Your task to perform on an android device: turn off picture-in-picture Image 0: 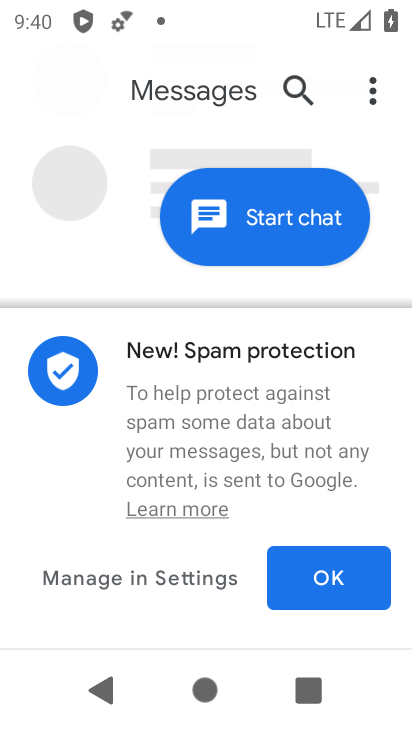
Step 0: press home button
Your task to perform on an android device: turn off picture-in-picture Image 1: 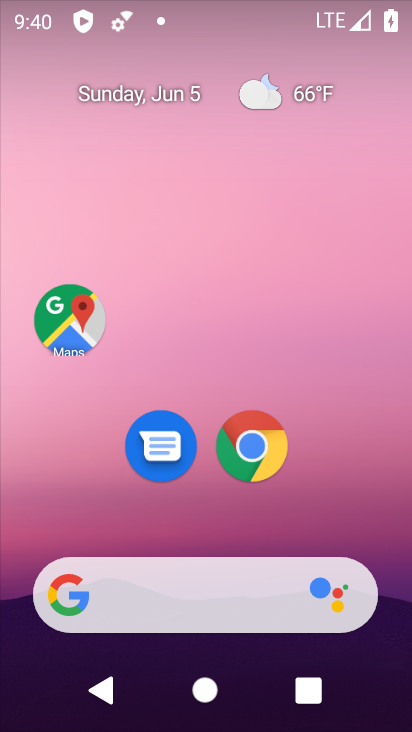
Step 1: drag from (240, 436) to (262, 232)
Your task to perform on an android device: turn off picture-in-picture Image 2: 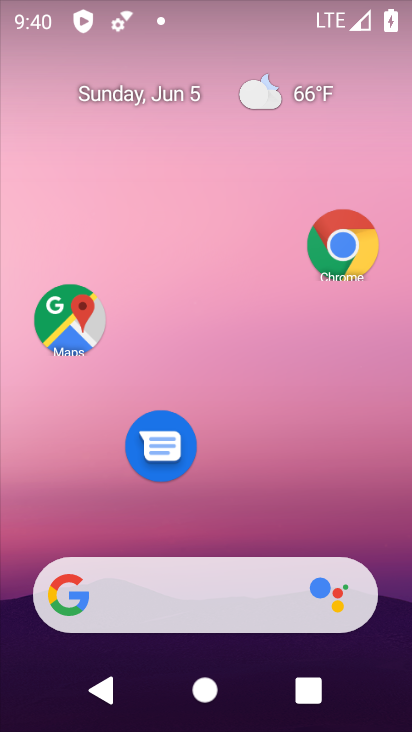
Step 2: click (317, 247)
Your task to perform on an android device: turn off picture-in-picture Image 3: 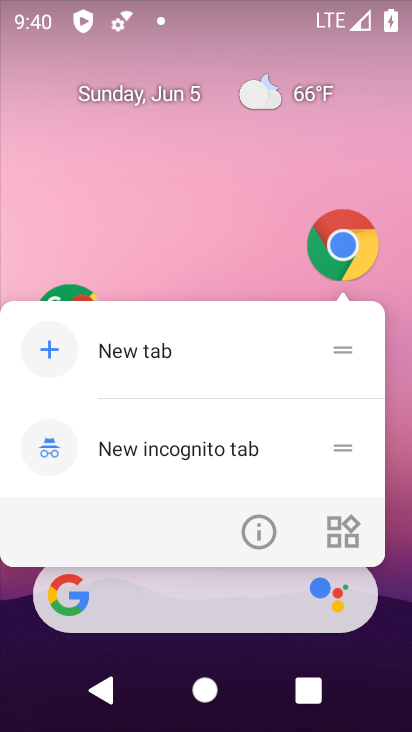
Step 3: click (262, 515)
Your task to perform on an android device: turn off picture-in-picture Image 4: 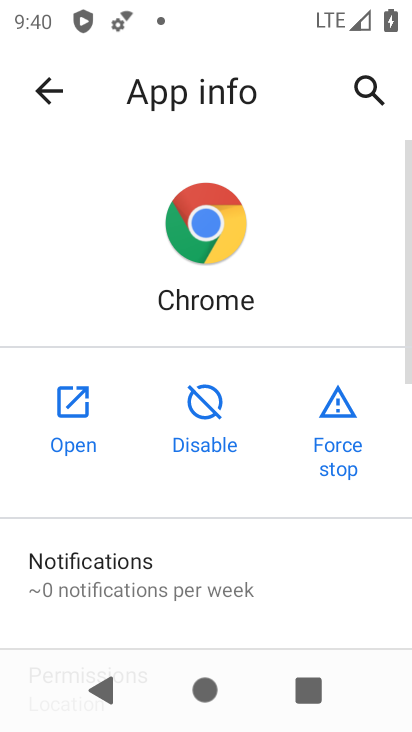
Step 4: drag from (226, 603) to (250, 312)
Your task to perform on an android device: turn off picture-in-picture Image 5: 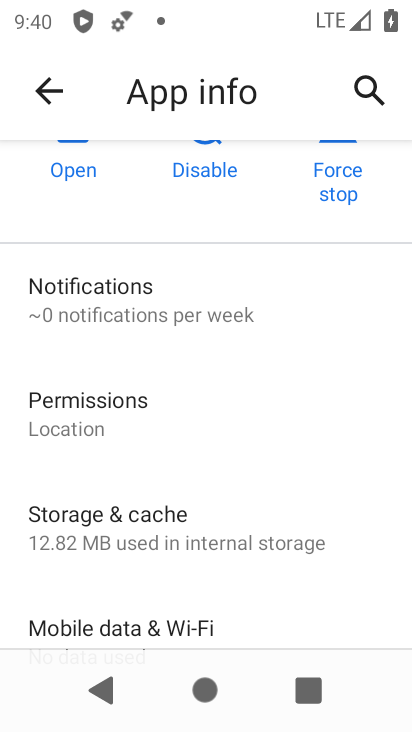
Step 5: drag from (223, 508) to (237, 291)
Your task to perform on an android device: turn off picture-in-picture Image 6: 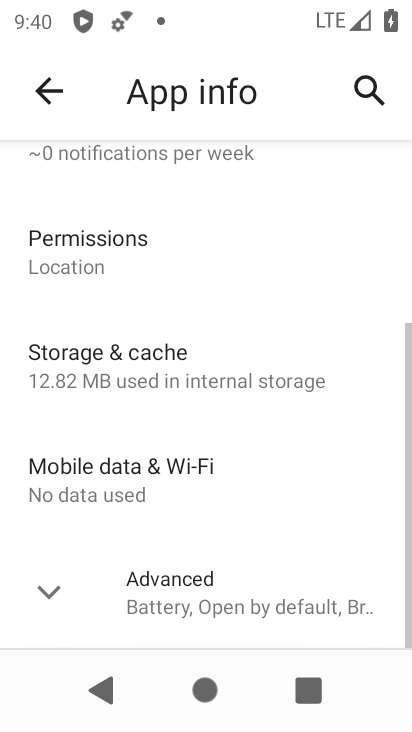
Step 6: drag from (231, 541) to (247, 322)
Your task to perform on an android device: turn off picture-in-picture Image 7: 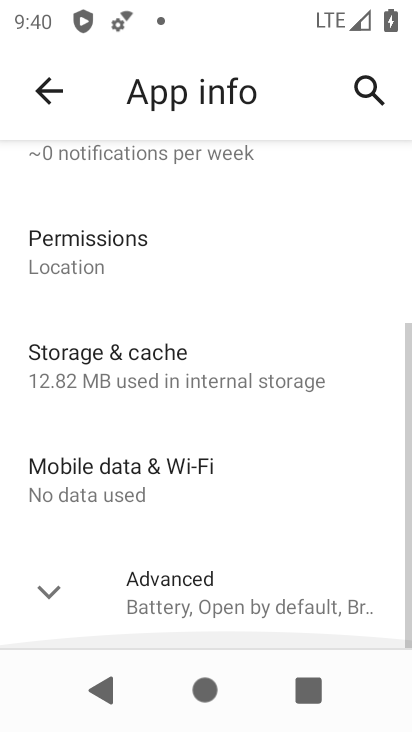
Step 7: click (148, 577)
Your task to perform on an android device: turn off picture-in-picture Image 8: 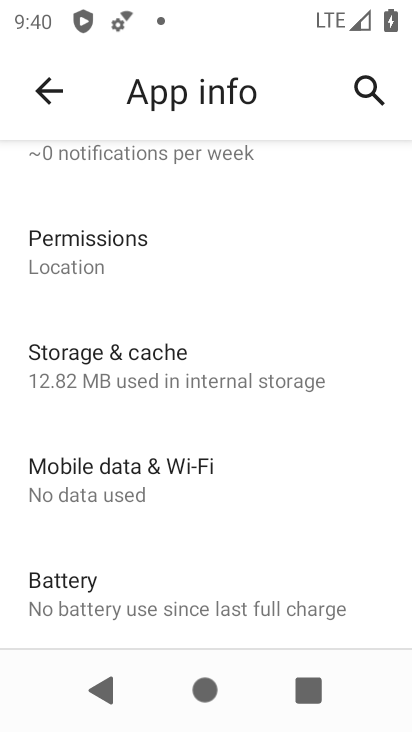
Step 8: drag from (192, 547) to (195, 203)
Your task to perform on an android device: turn off picture-in-picture Image 9: 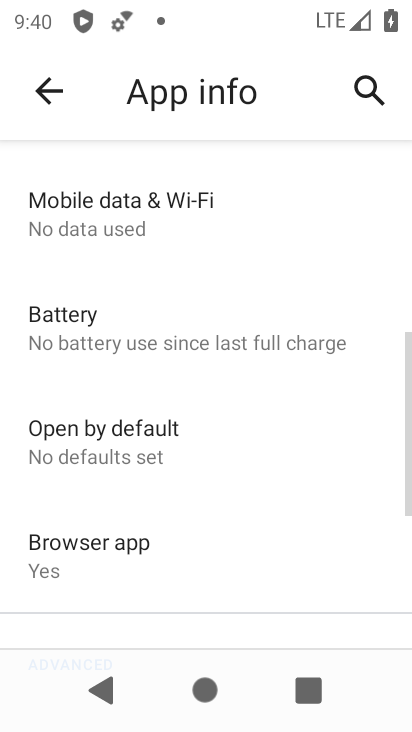
Step 9: drag from (205, 531) to (218, 272)
Your task to perform on an android device: turn off picture-in-picture Image 10: 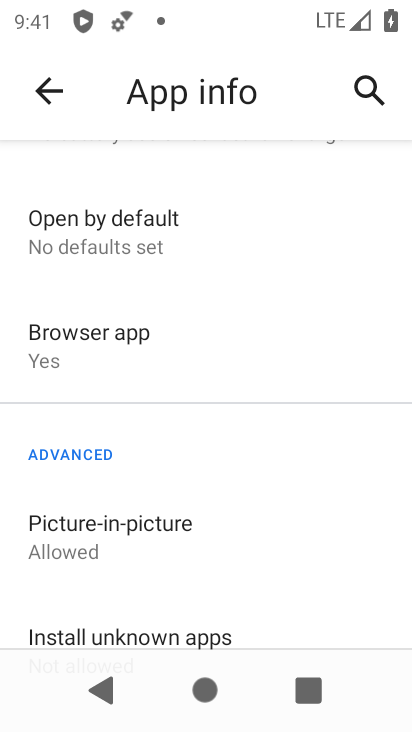
Step 10: drag from (244, 530) to (272, 320)
Your task to perform on an android device: turn off picture-in-picture Image 11: 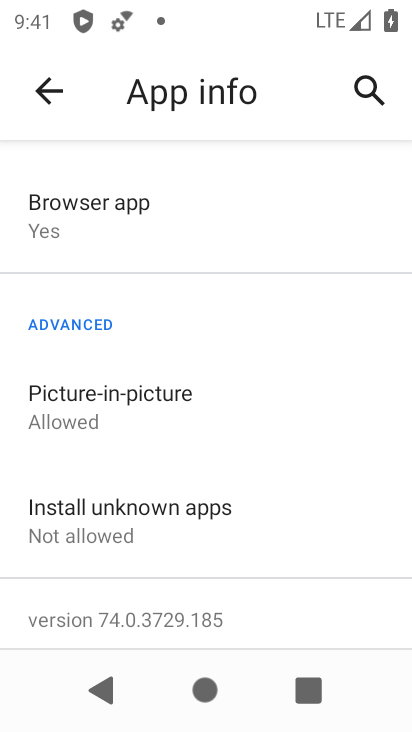
Step 11: drag from (192, 600) to (244, 332)
Your task to perform on an android device: turn off picture-in-picture Image 12: 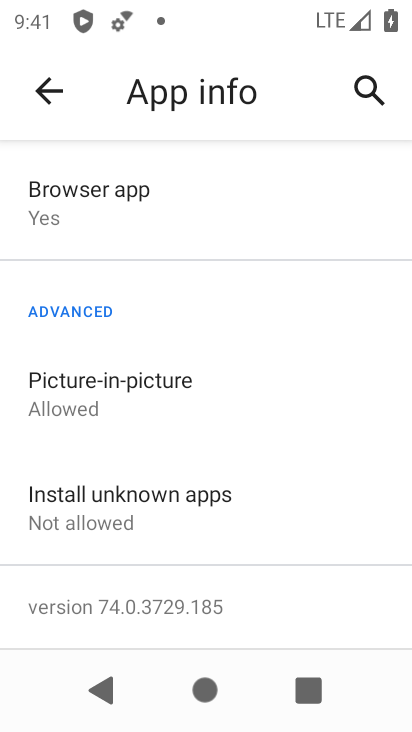
Step 12: click (170, 395)
Your task to perform on an android device: turn off picture-in-picture Image 13: 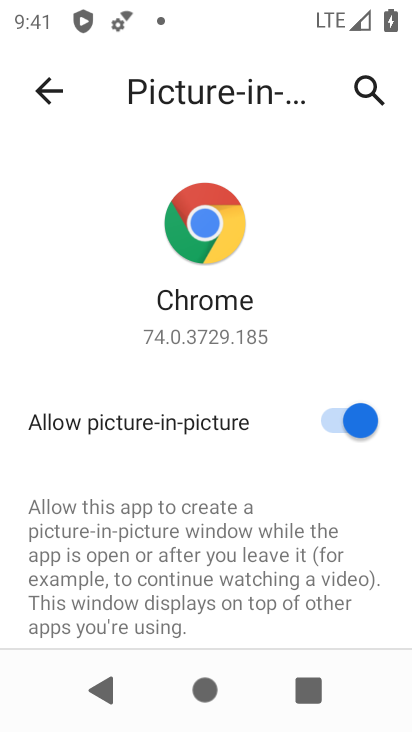
Step 13: click (331, 413)
Your task to perform on an android device: turn off picture-in-picture Image 14: 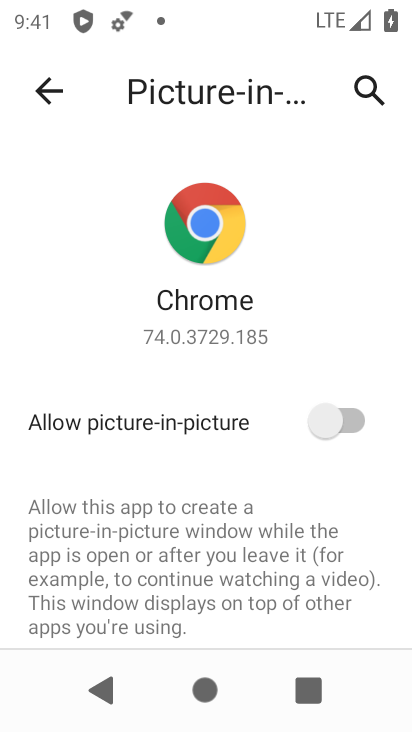
Step 14: task complete